Your task to perform on an android device: Open the stopwatch Image 0: 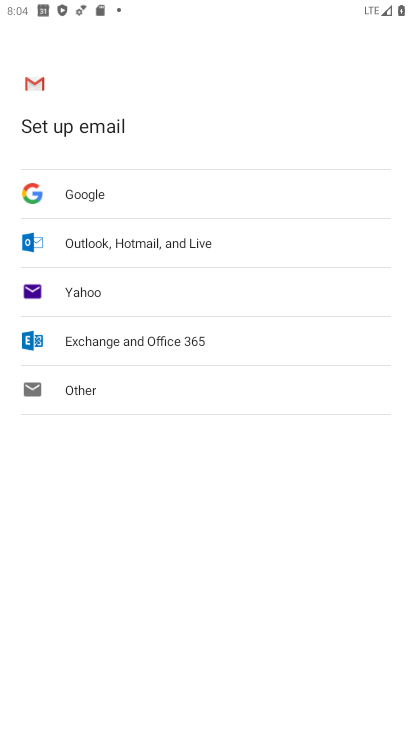
Step 0: press home button
Your task to perform on an android device: Open the stopwatch Image 1: 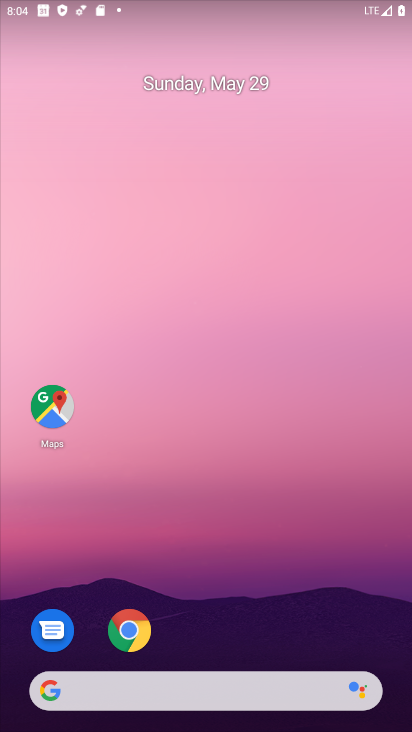
Step 1: drag from (226, 672) to (183, 175)
Your task to perform on an android device: Open the stopwatch Image 2: 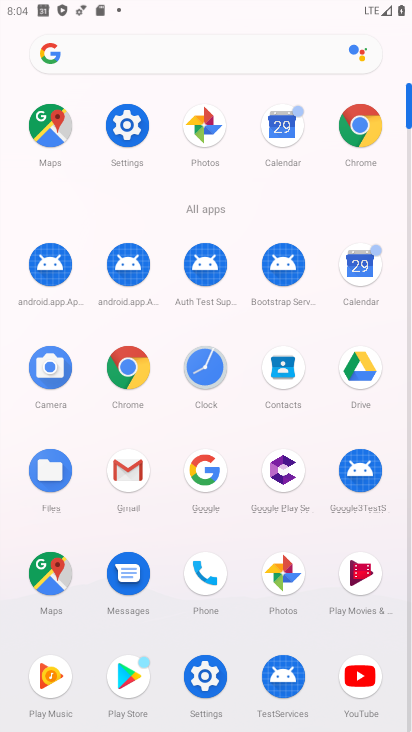
Step 2: click (215, 382)
Your task to perform on an android device: Open the stopwatch Image 3: 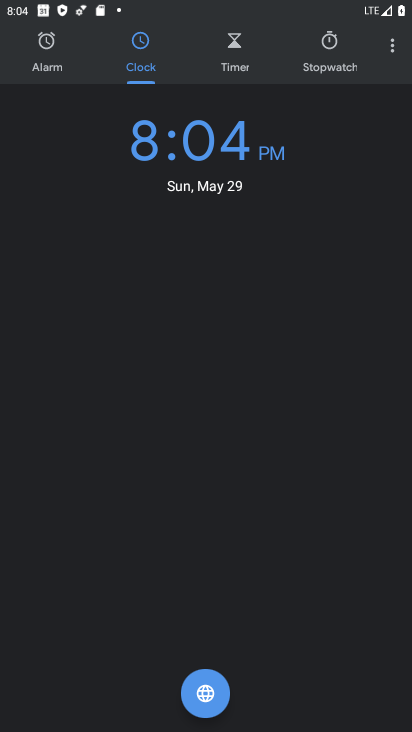
Step 3: click (328, 63)
Your task to perform on an android device: Open the stopwatch Image 4: 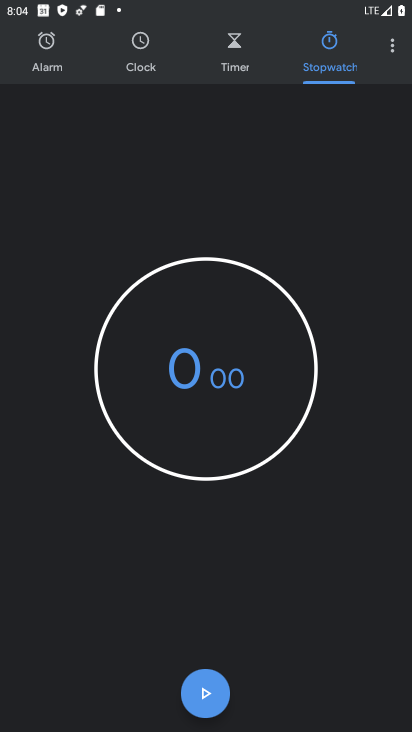
Step 4: task complete